Your task to perform on an android device: Set the phone to "Do not disturb". Image 0: 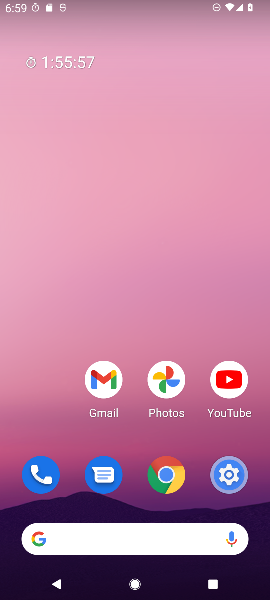
Step 0: press home button
Your task to perform on an android device: Set the phone to "Do not disturb". Image 1: 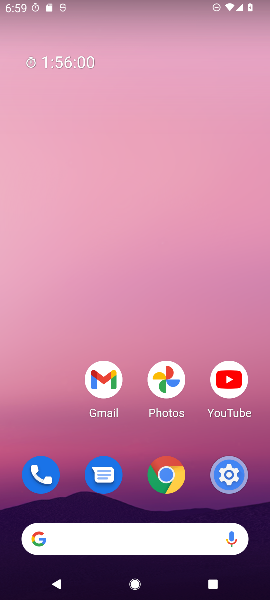
Step 1: drag from (60, 420) to (39, 127)
Your task to perform on an android device: Set the phone to "Do not disturb". Image 2: 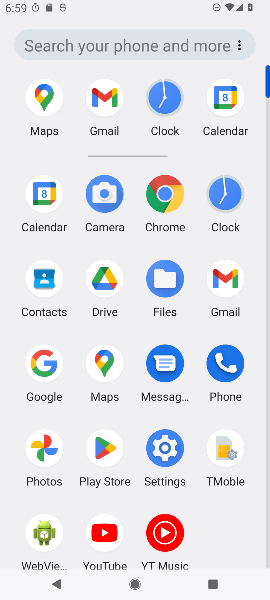
Step 2: click (173, 445)
Your task to perform on an android device: Set the phone to "Do not disturb". Image 3: 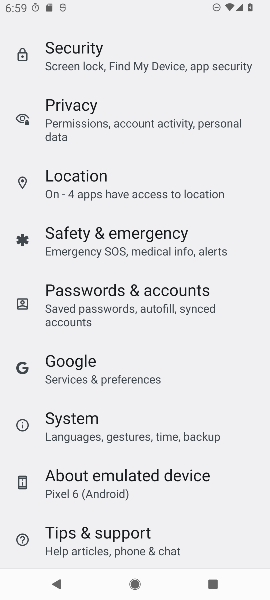
Step 3: drag from (248, 179) to (248, 292)
Your task to perform on an android device: Set the phone to "Do not disturb". Image 4: 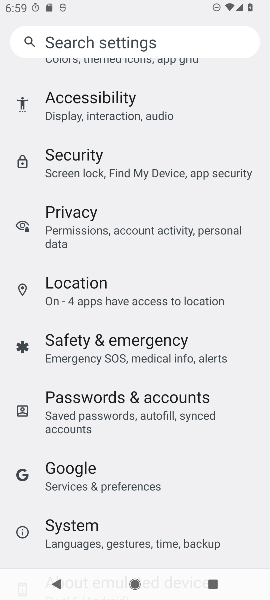
Step 4: drag from (242, 188) to (245, 281)
Your task to perform on an android device: Set the phone to "Do not disturb". Image 5: 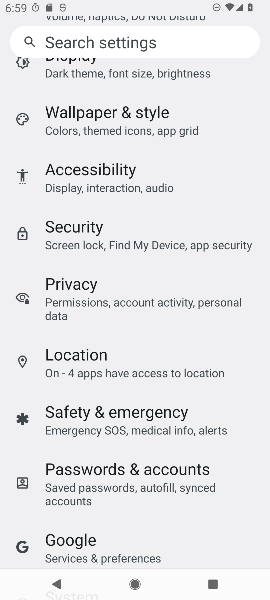
Step 5: drag from (244, 115) to (252, 231)
Your task to perform on an android device: Set the phone to "Do not disturb". Image 6: 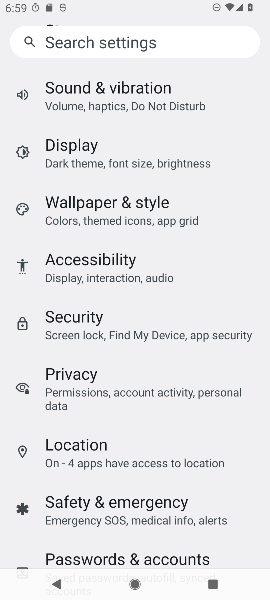
Step 6: drag from (249, 98) to (249, 242)
Your task to perform on an android device: Set the phone to "Do not disturb". Image 7: 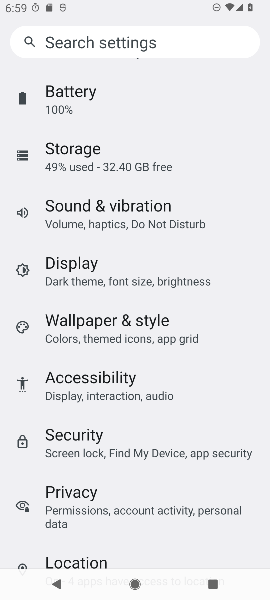
Step 7: drag from (237, 132) to (236, 250)
Your task to perform on an android device: Set the phone to "Do not disturb". Image 8: 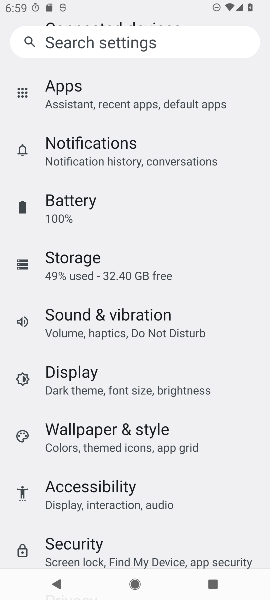
Step 8: drag from (258, 119) to (246, 221)
Your task to perform on an android device: Set the phone to "Do not disturb". Image 9: 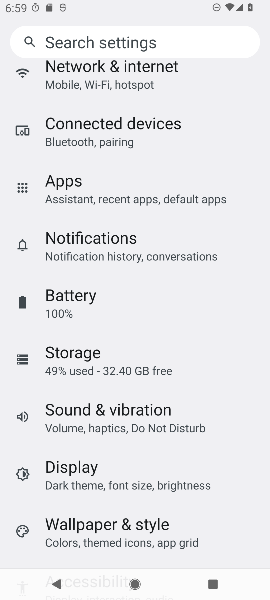
Step 9: drag from (246, 213) to (234, 274)
Your task to perform on an android device: Set the phone to "Do not disturb". Image 10: 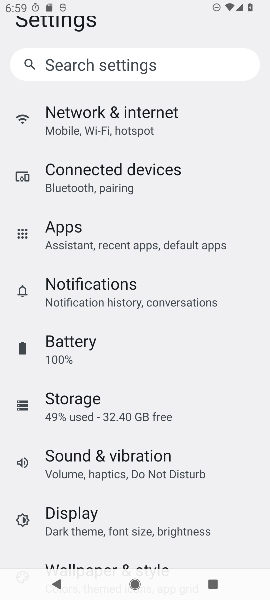
Step 10: click (169, 473)
Your task to perform on an android device: Set the phone to "Do not disturb". Image 11: 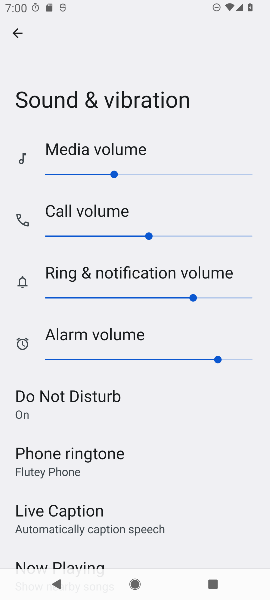
Step 11: task complete